Your task to perform on an android device: turn on notifications settings in the gmail app Image 0: 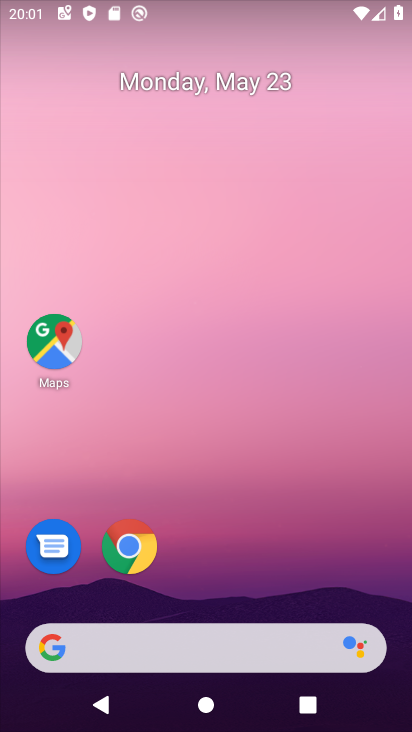
Step 0: drag from (388, 601) to (366, 277)
Your task to perform on an android device: turn on notifications settings in the gmail app Image 1: 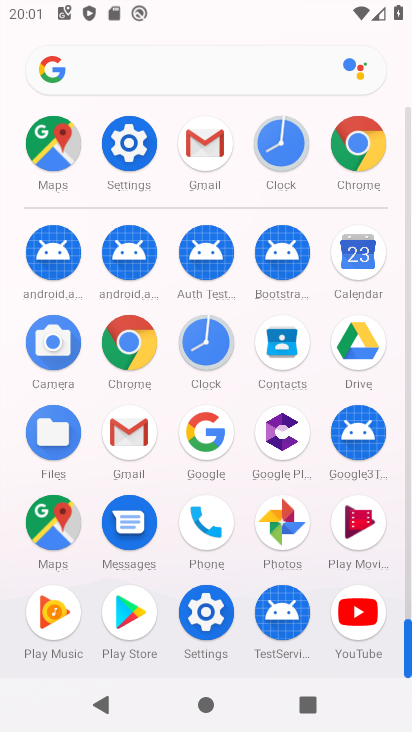
Step 1: click (136, 447)
Your task to perform on an android device: turn on notifications settings in the gmail app Image 2: 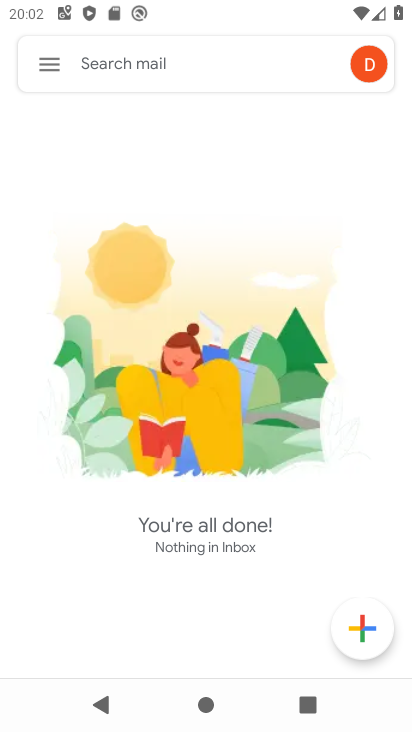
Step 2: click (43, 60)
Your task to perform on an android device: turn on notifications settings in the gmail app Image 3: 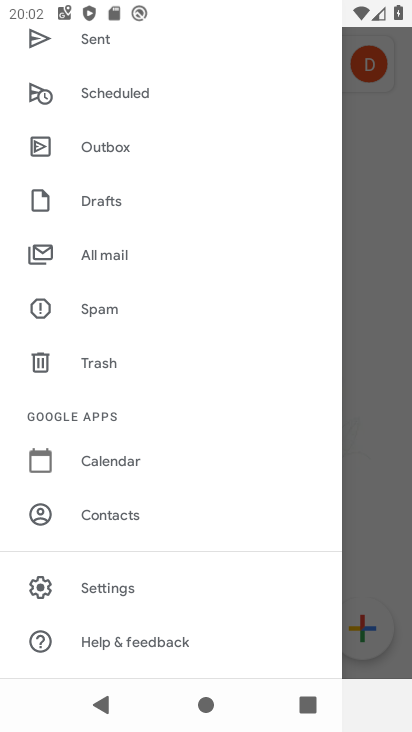
Step 3: drag from (243, 554) to (260, 423)
Your task to perform on an android device: turn on notifications settings in the gmail app Image 4: 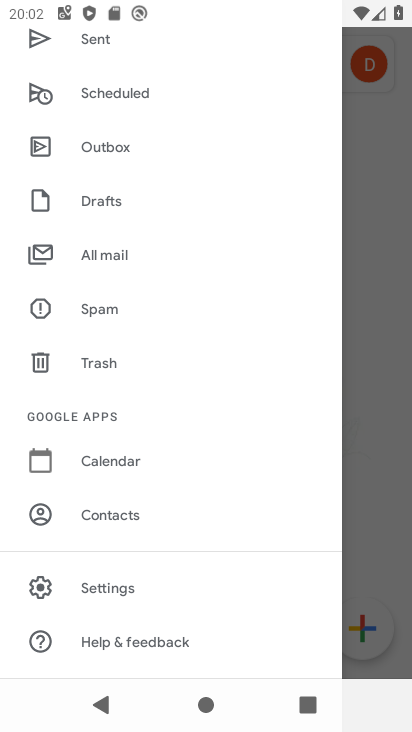
Step 4: click (175, 593)
Your task to perform on an android device: turn on notifications settings in the gmail app Image 5: 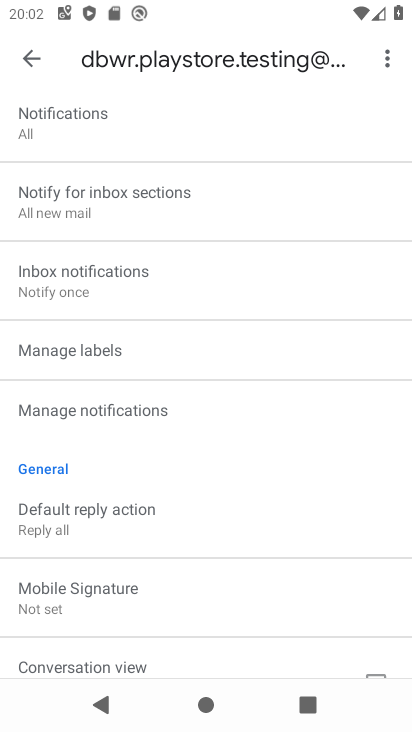
Step 5: drag from (309, 213) to (310, 351)
Your task to perform on an android device: turn on notifications settings in the gmail app Image 6: 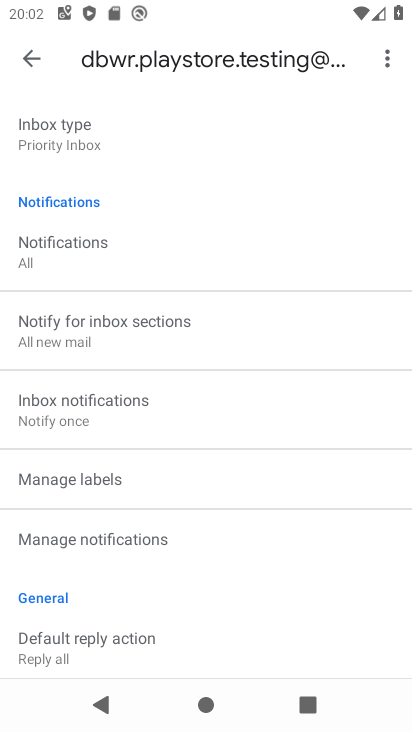
Step 6: drag from (310, 212) to (316, 333)
Your task to perform on an android device: turn on notifications settings in the gmail app Image 7: 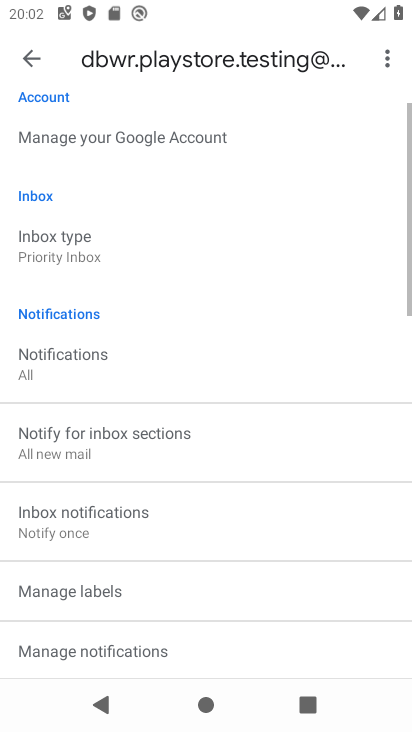
Step 7: drag from (311, 181) to (314, 366)
Your task to perform on an android device: turn on notifications settings in the gmail app Image 8: 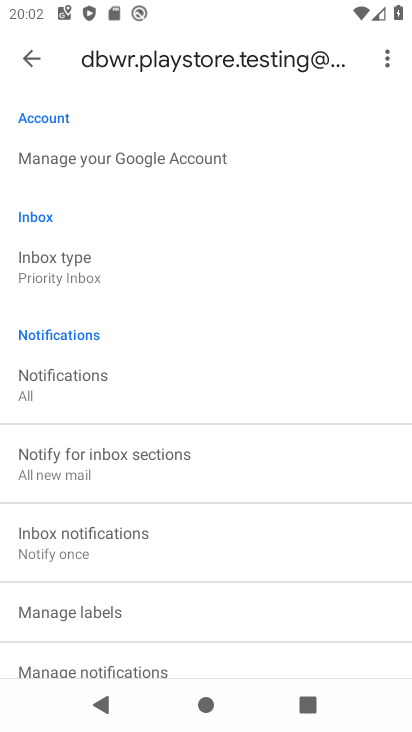
Step 8: drag from (331, 457) to (333, 208)
Your task to perform on an android device: turn on notifications settings in the gmail app Image 9: 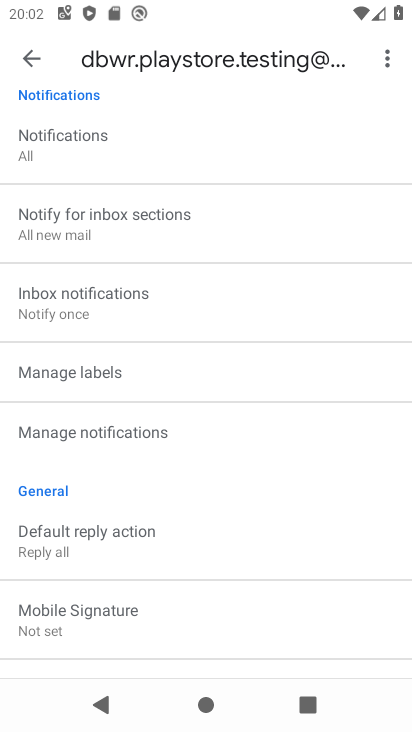
Step 9: drag from (325, 545) to (336, 318)
Your task to perform on an android device: turn on notifications settings in the gmail app Image 10: 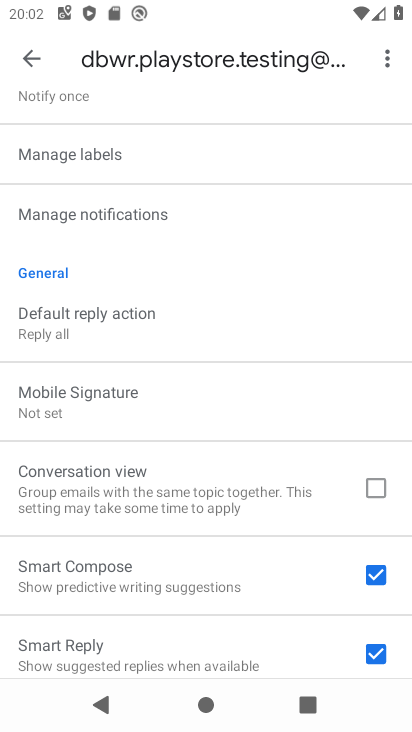
Step 10: drag from (307, 589) to (303, 442)
Your task to perform on an android device: turn on notifications settings in the gmail app Image 11: 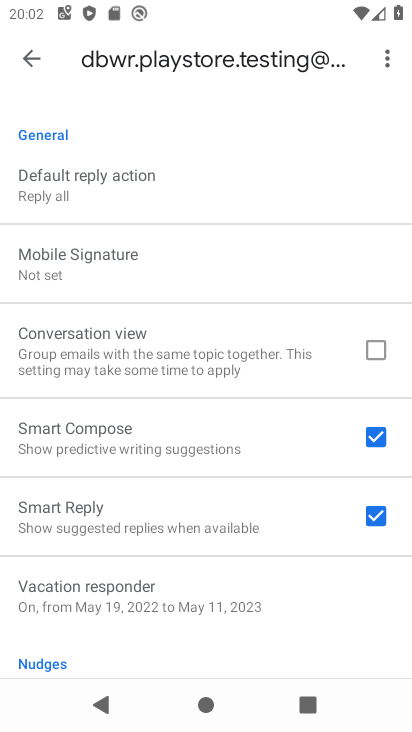
Step 11: drag from (327, 604) to (328, 420)
Your task to perform on an android device: turn on notifications settings in the gmail app Image 12: 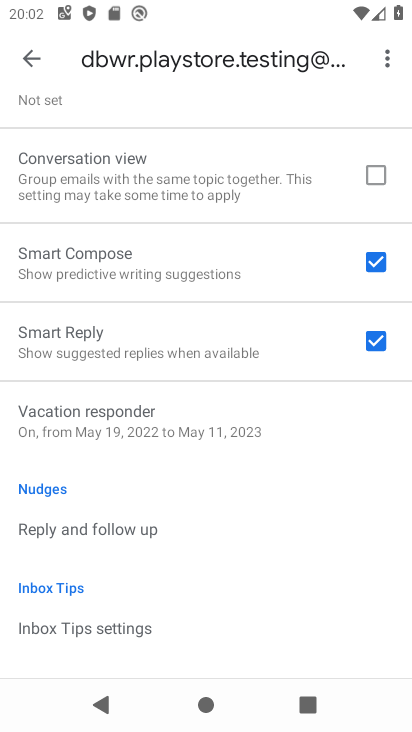
Step 12: drag from (322, 598) to (313, 462)
Your task to perform on an android device: turn on notifications settings in the gmail app Image 13: 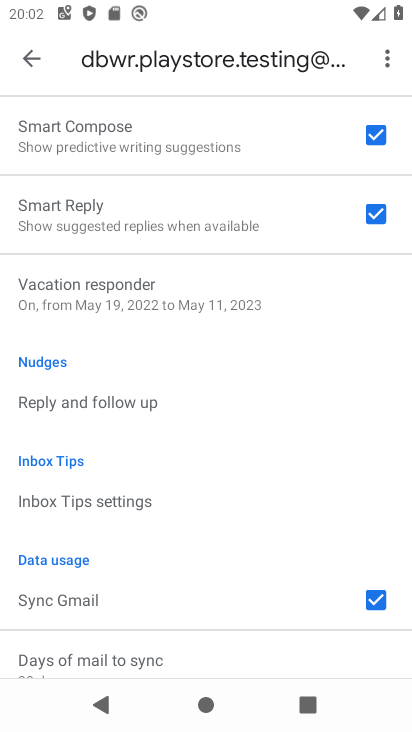
Step 13: drag from (287, 630) to (286, 511)
Your task to perform on an android device: turn on notifications settings in the gmail app Image 14: 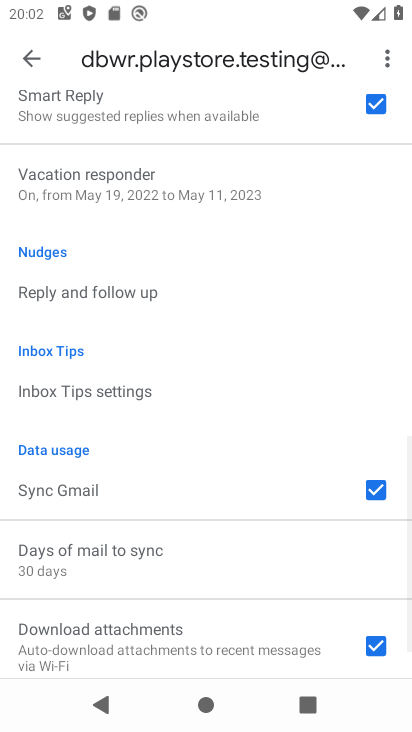
Step 14: drag from (295, 396) to (283, 545)
Your task to perform on an android device: turn on notifications settings in the gmail app Image 15: 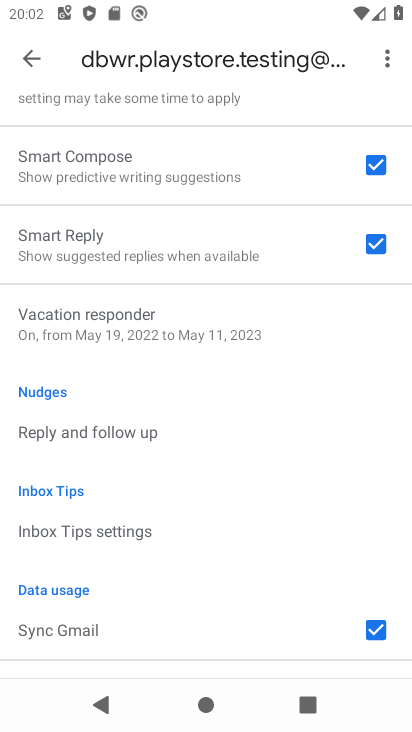
Step 15: drag from (293, 364) to (297, 490)
Your task to perform on an android device: turn on notifications settings in the gmail app Image 16: 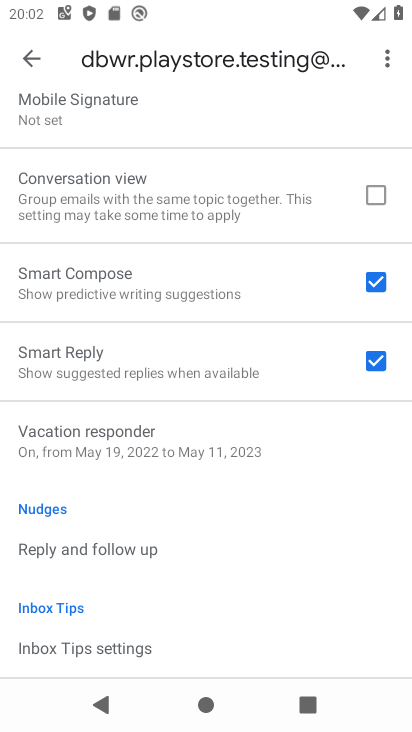
Step 16: drag from (299, 309) to (301, 430)
Your task to perform on an android device: turn on notifications settings in the gmail app Image 17: 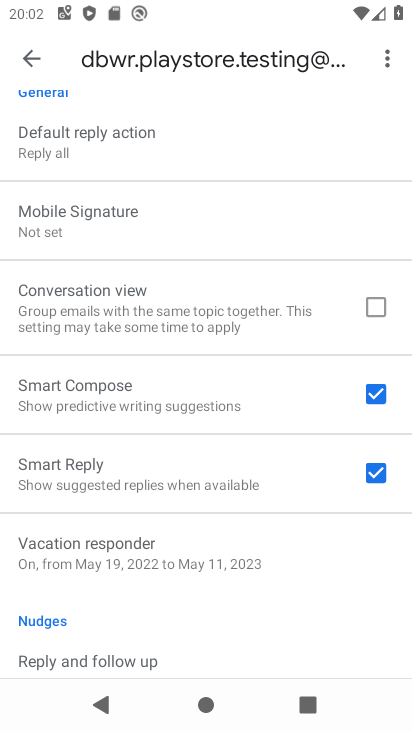
Step 17: drag from (295, 308) to (296, 446)
Your task to perform on an android device: turn on notifications settings in the gmail app Image 18: 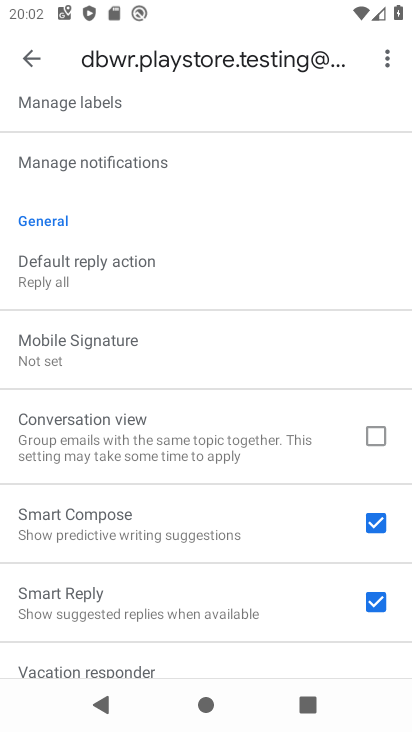
Step 18: drag from (270, 279) to (279, 408)
Your task to perform on an android device: turn on notifications settings in the gmail app Image 19: 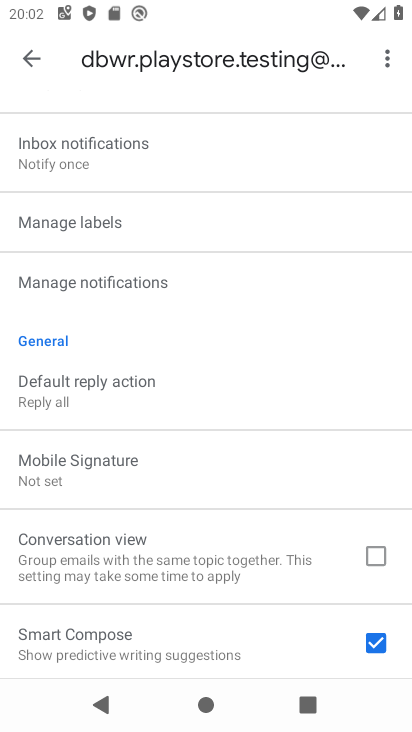
Step 19: click (217, 281)
Your task to perform on an android device: turn on notifications settings in the gmail app Image 20: 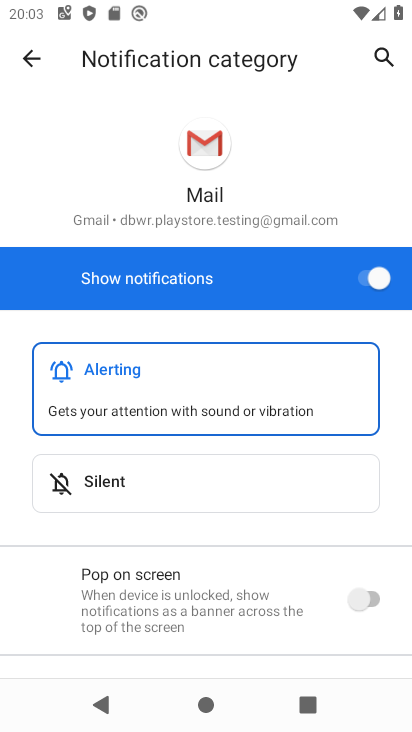
Step 20: task complete